Your task to perform on an android device: Do I have any events tomorrow? Image 0: 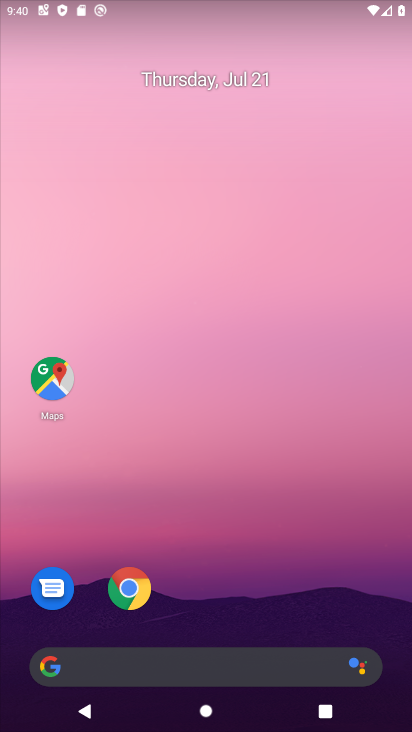
Step 0: drag from (393, 647) to (407, 165)
Your task to perform on an android device: Do I have any events tomorrow? Image 1: 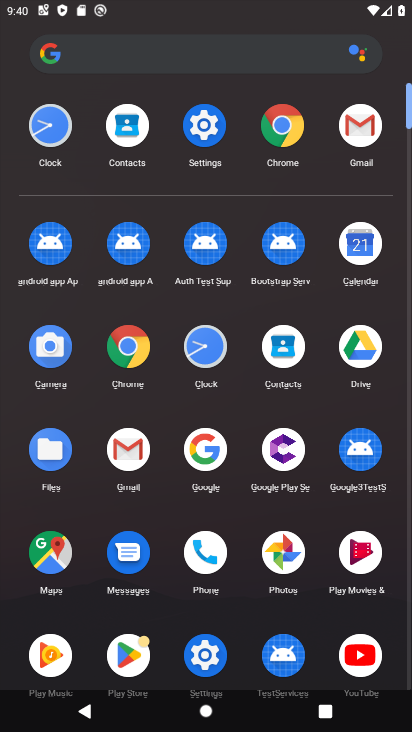
Step 1: click (210, 133)
Your task to perform on an android device: Do I have any events tomorrow? Image 2: 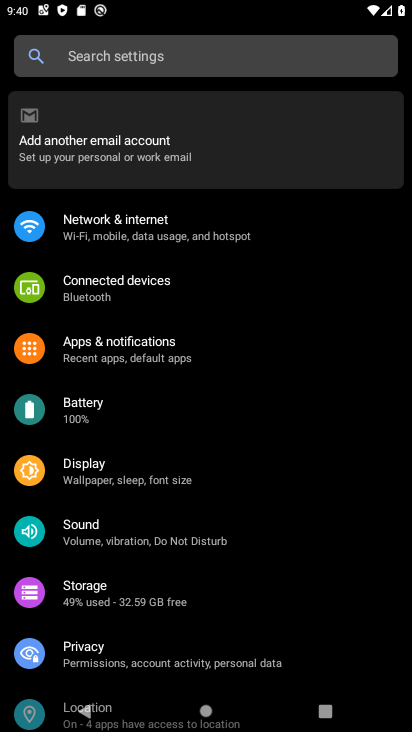
Step 2: press home button
Your task to perform on an android device: Do I have any events tomorrow? Image 3: 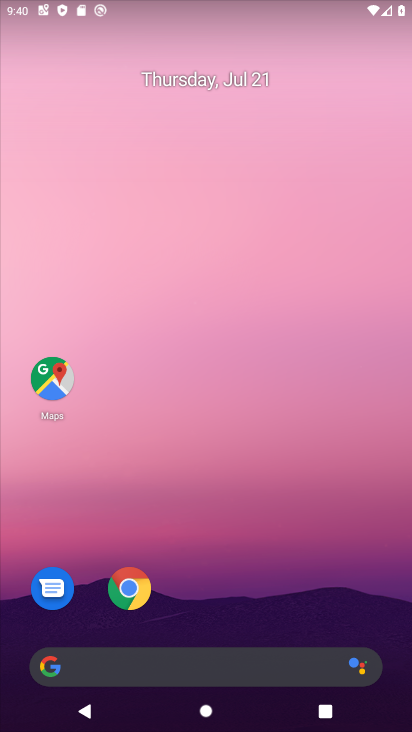
Step 3: drag from (389, 695) to (274, 67)
Your task to perform on an android device: Do I have any events tomorrow? Image 4: 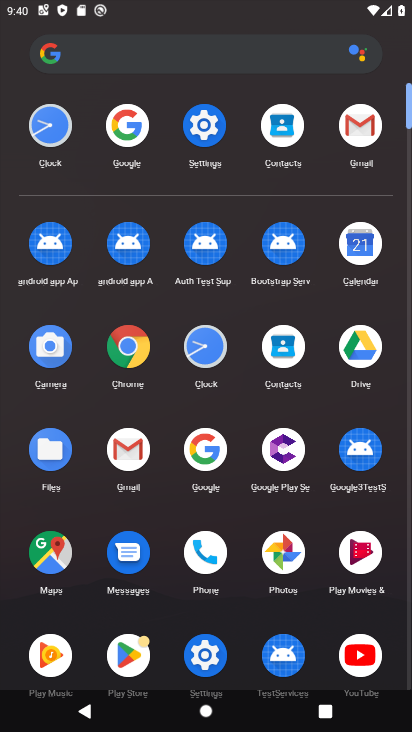
Step 4: click (356, 247)
Your task to perform on an android device: Do I have any events tomorrow? Image 5: 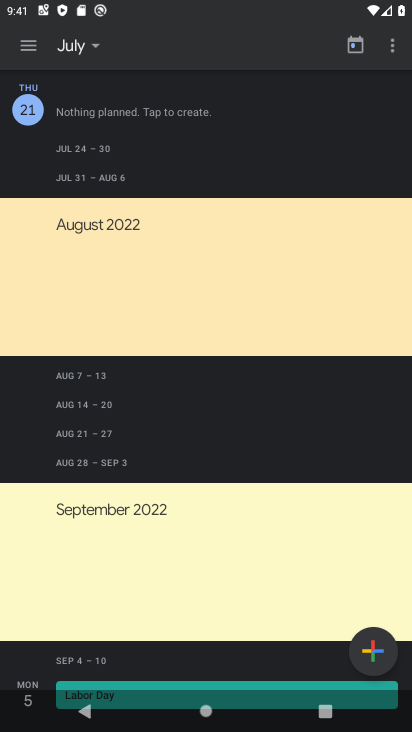
Step 5: task complete